Your task to perform on an android device: Go to calendar. Show me events next week Image 0: 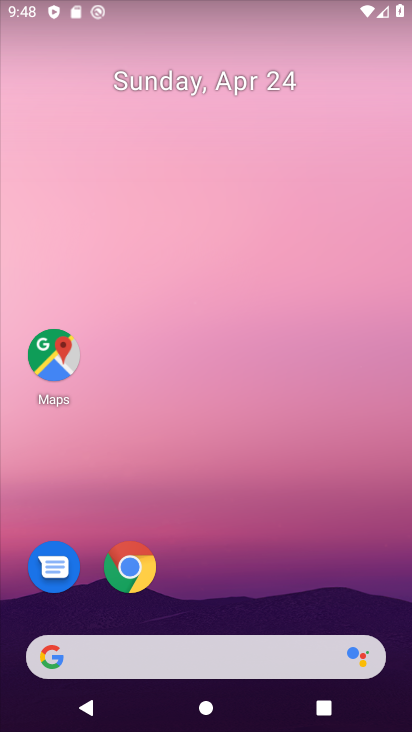
Step 0: drag from (38, 636) to (383, 57)
Your task to perform on an android device: Go to calendar. Show me events next week Image 1: 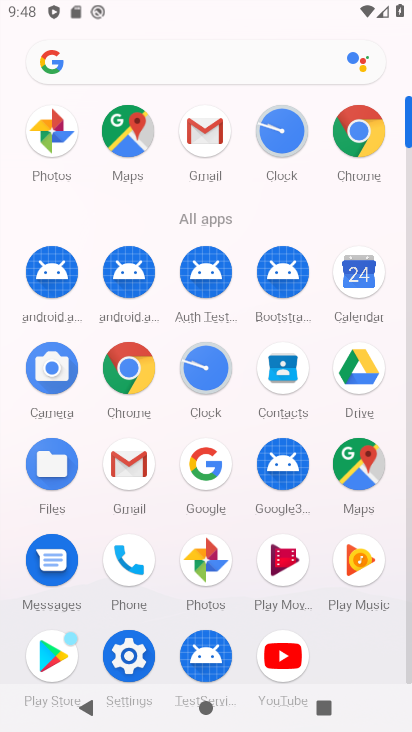
Step 1: click (357, 274)
Your task to perform on an android device: Go to calendar. Show me events next week Image 2: 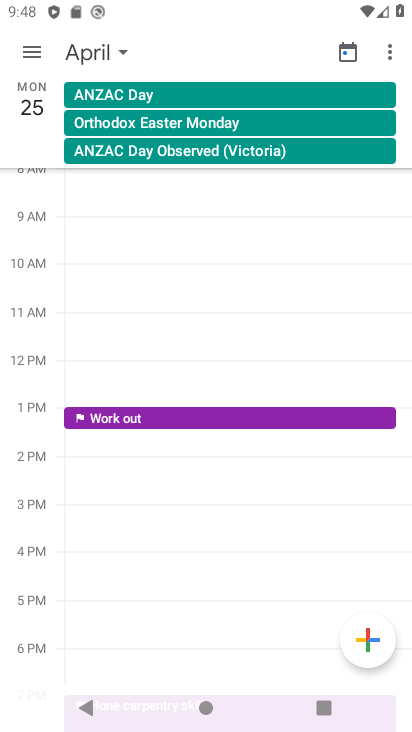
Step 2: click (87, 60)
Your task to perform on an android device: Go to calendar. Show me events next week Image 3: 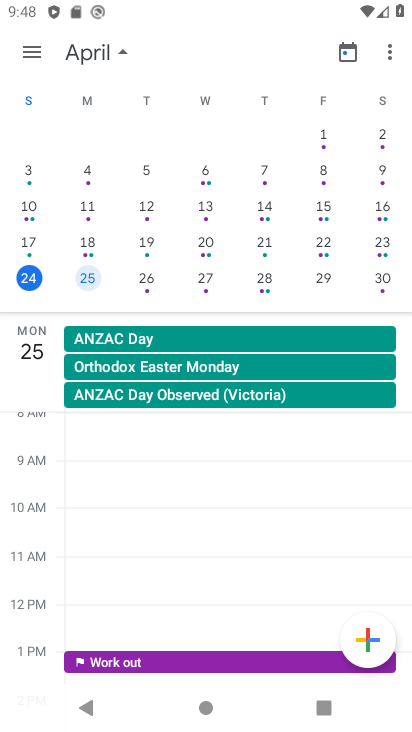
Step 3: drag from (365, 216) to (76, 195)
Your task to perform on an android device: Go to calendar. Show me events next week Image 4: 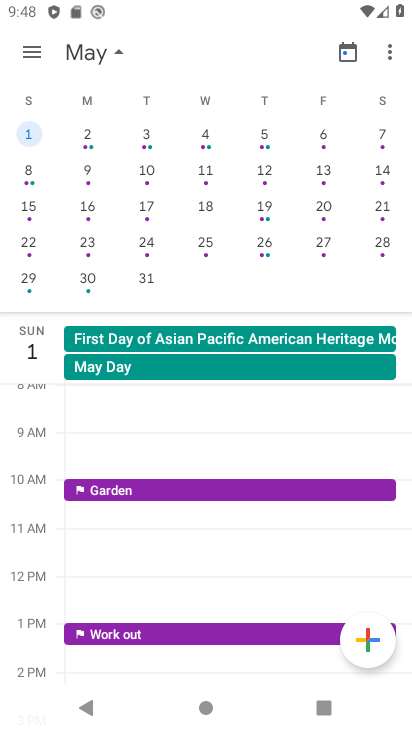
Step 4: click (16, 134)
Your task to perform on an android device: Go to calendar. Show me events next week Image 5: 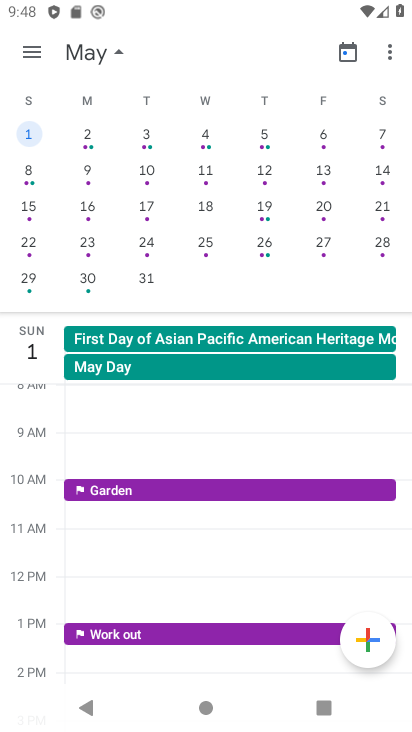
Step 5: click (89, 134)
Your task to perform on an android device: Go to calendar. Show me events next week Image 6: 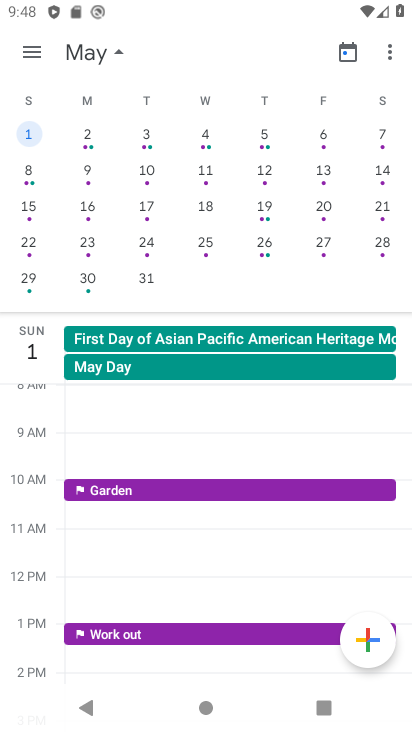
Step 6: click (148, 149)
Your task to perform on an android device: Go to calendar. Show me events next week Image 7: 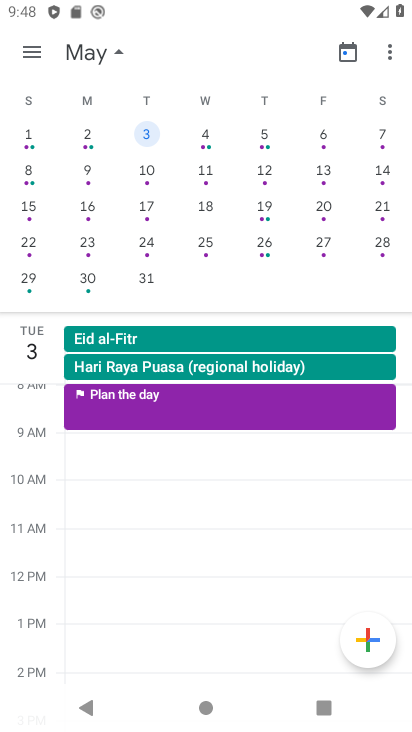
Step 7: click (201, 135)
Your task to perform on an android device: Go to calendar. Show me events next week Image 8: 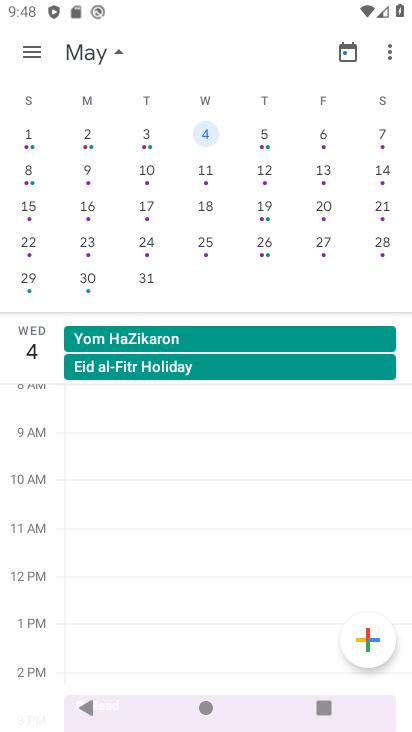
Step 8: click (262, 141)
Your task to perform on an android device: Go to calendar. Show me events next week Image 9: 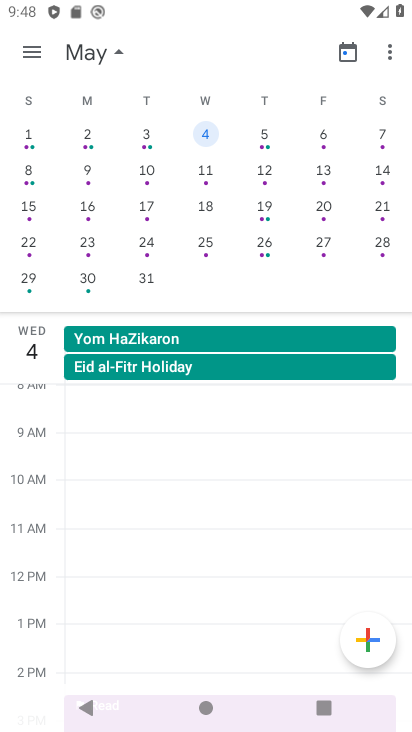
Step 9: click (318, 129)
Your task to perform on an android device: Go to calendar. Show me events next week Image 10: 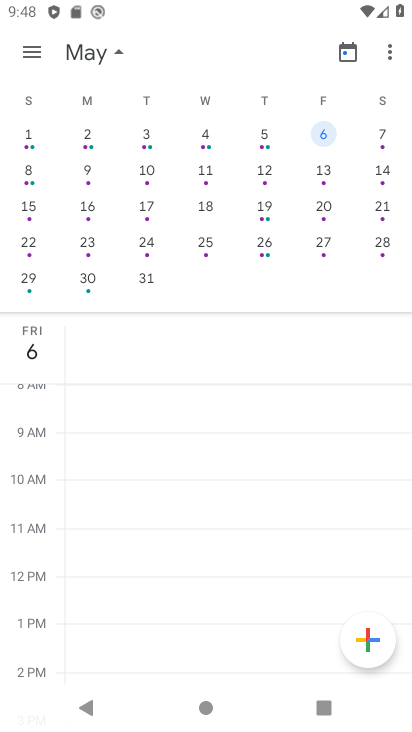
Step 10: click (263, 136)
Your task to perform on an android device: Go to calendar. Show me events next week Image 11: 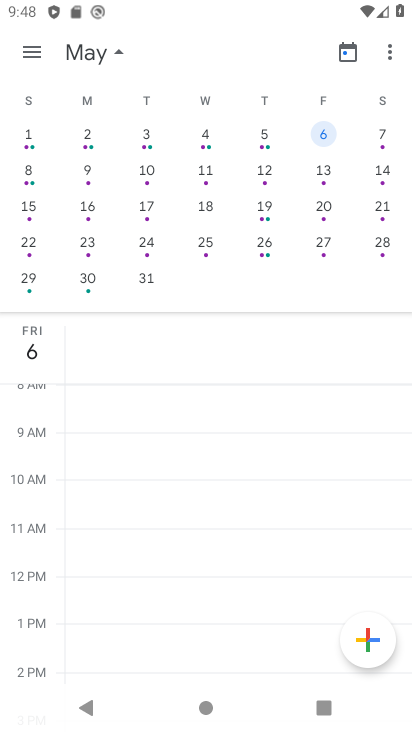
Step 11: click (374, 132)
Your task to perform on an android device: Go to calendar. Show me events next week Image 12: 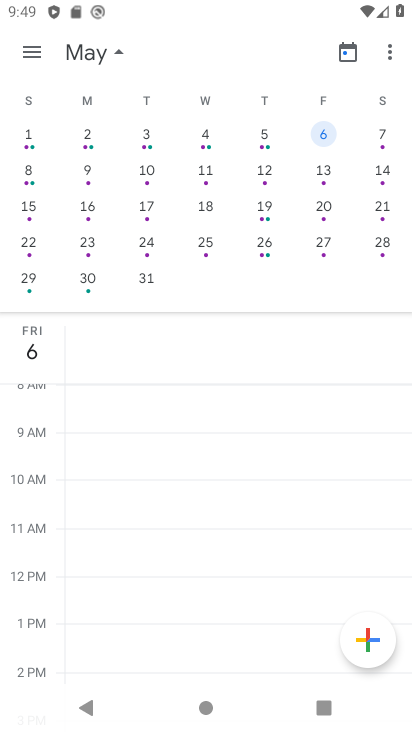
Step 12: task complete